Your task to perform on an android device: Open Reddit.com Image 0: 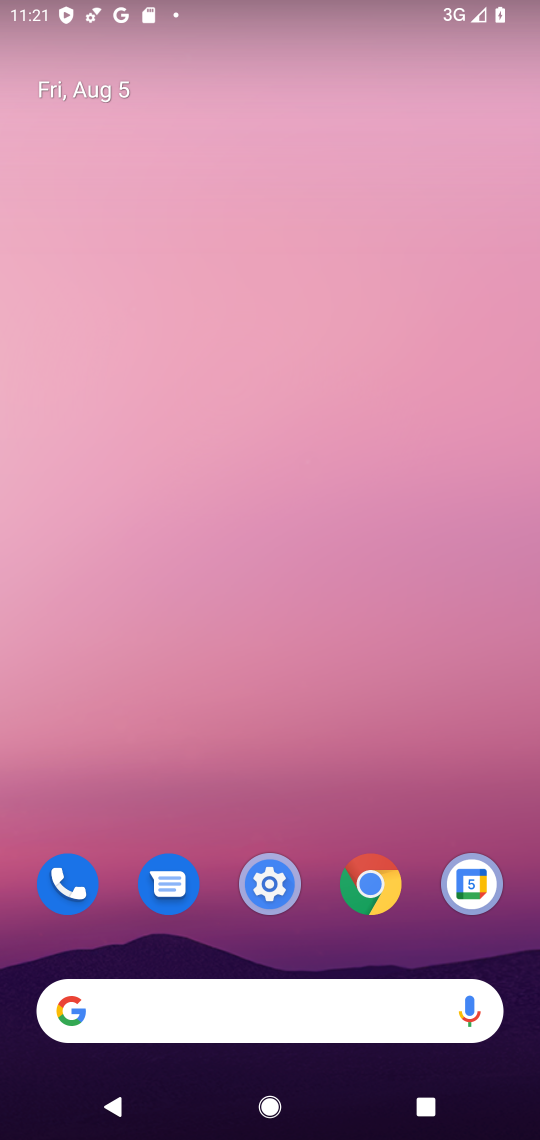
Step 0: click (385, 869)
Your task to perform on an android device: Open Reddit.com Image 1: 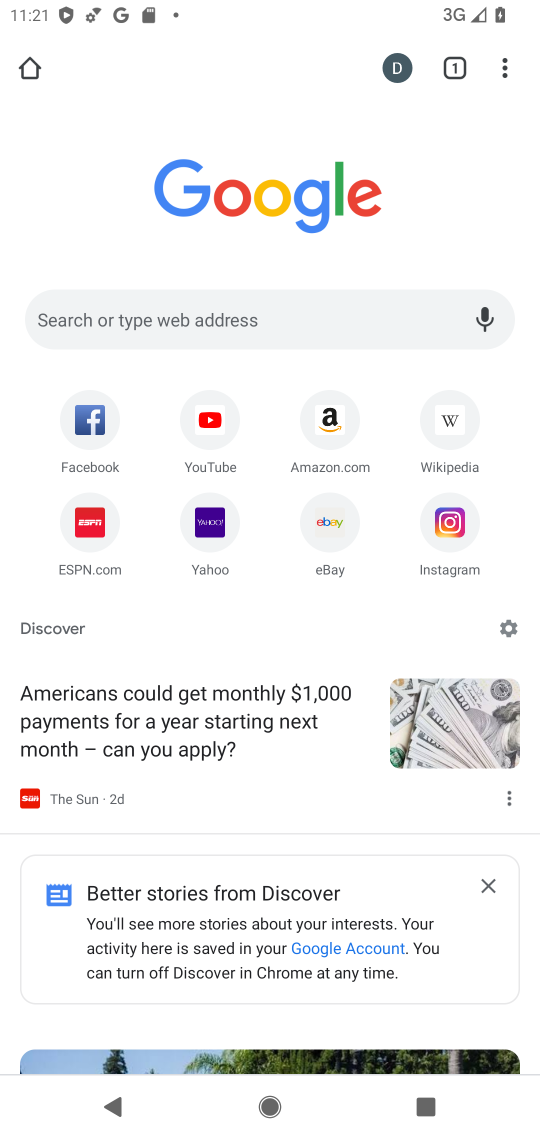
Step 1: click (281, 332)
Your task to perform on an android device: Open Reddit.com Image 2: 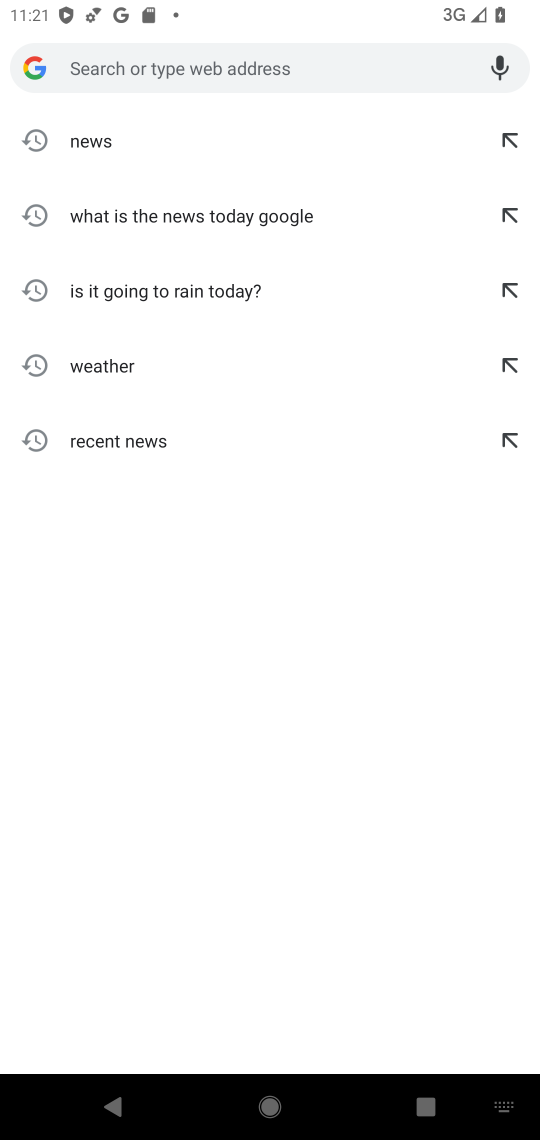
Step 2: type "reddit.com"
Your task to perform on an android device: Open Reddit.com Image 3: 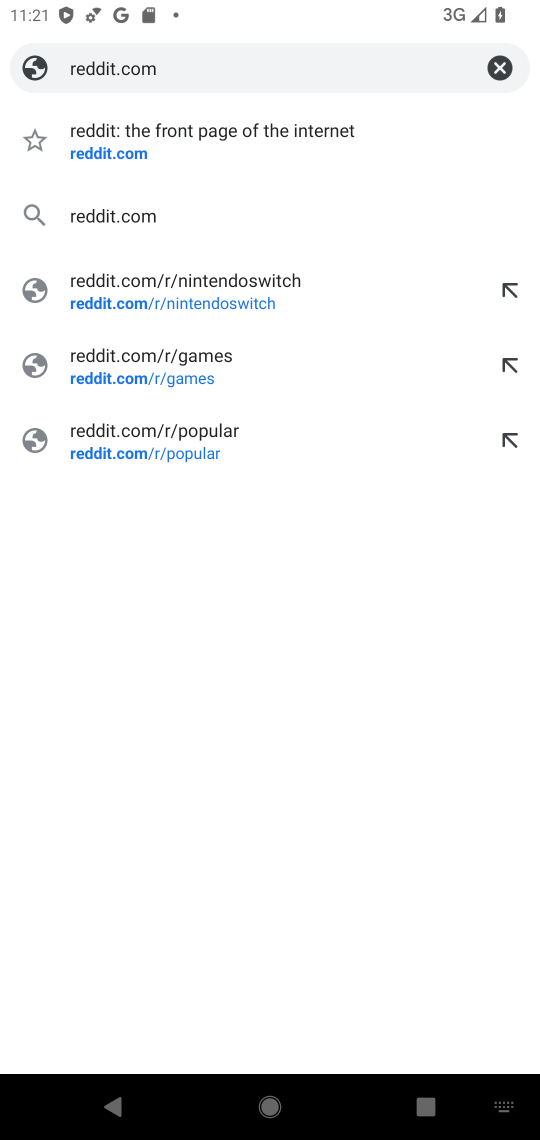
Step 3: click (128, 121)
Your task to perform on an android device: Open Reddit.com Image 4: 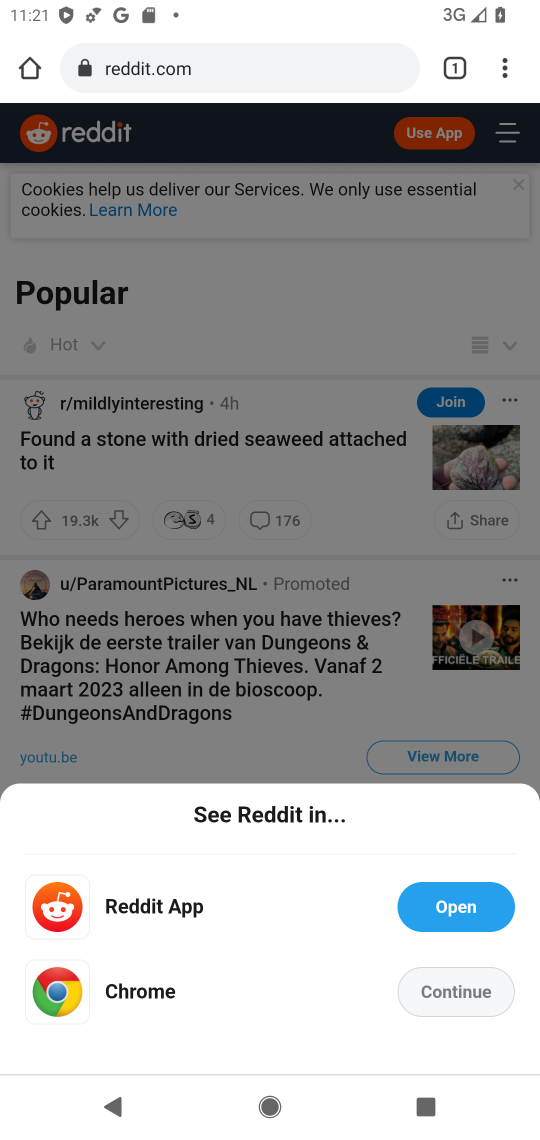
Step 4: task complete